Your task to perform on an android device: Go to eBay Image 0: 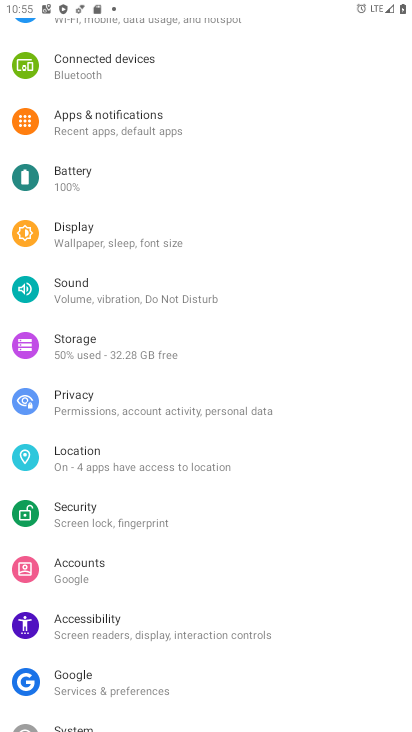
Step 0: press home button
Your task to perform on an android device: Go to eBay Image 1: 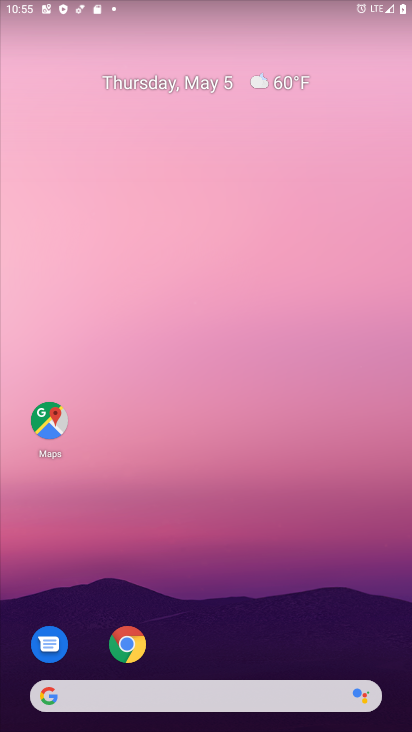
Step 1: click (138, 650)
Your task to perform on an android device: Go to eBay Image 2: 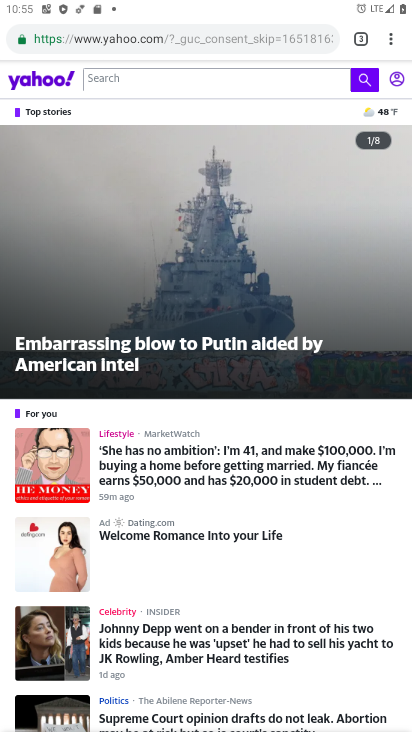
Step 2: click (153, 45)
Your task to perform on an android device: Go to eBay Image 3: 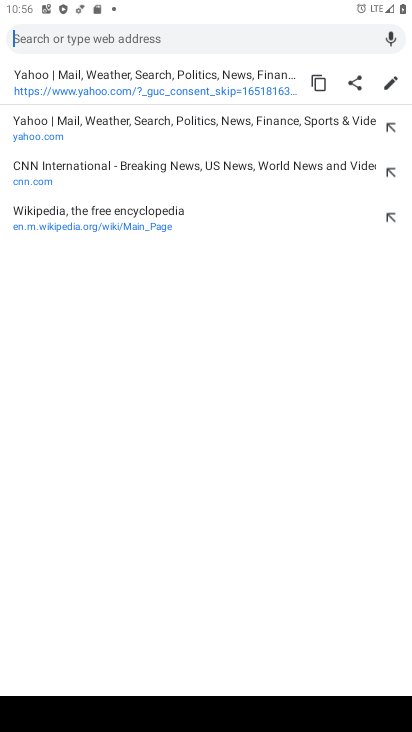
Step 3: type "ebay"
Your task to perform on an android device: Go to eBay Image 4: 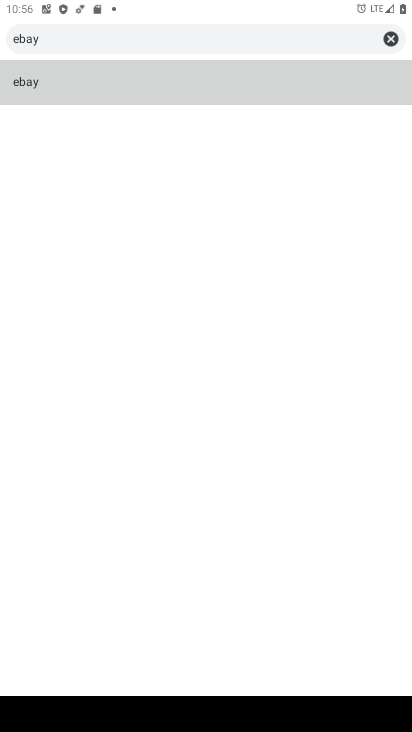
Step 4: click (29, 78)
Your task to perform on an android device: Go to eBay Image 5: 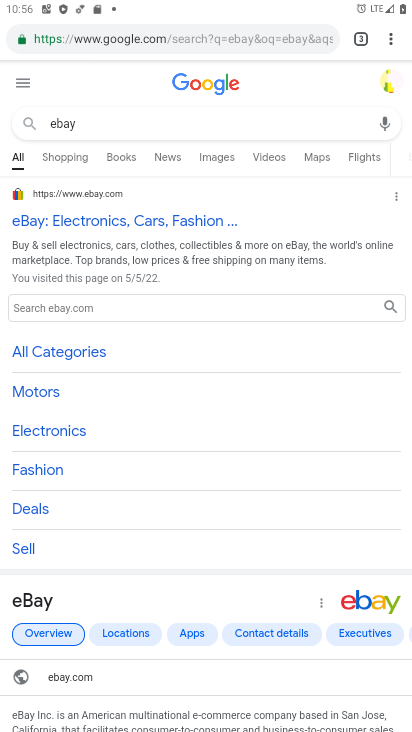
Step 5: click (83, 226)
Your task to perform on an android device: Go to eBay Image 6: 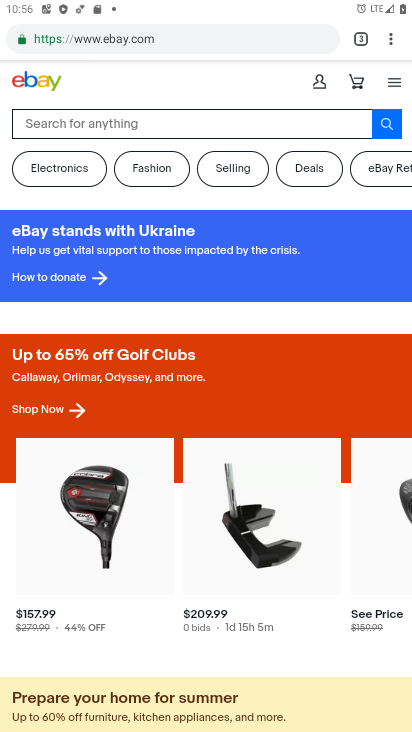
Step 6: task complete